Your task to perform on an android device: turn pop-ups off in chrome Image 0: 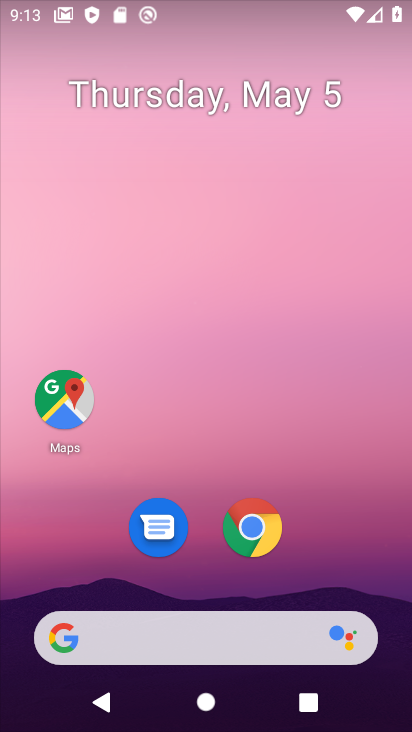
Step 0: click (264, 520)
Your task to perform on an android device: turn pop-ups off in chrome Image 1: 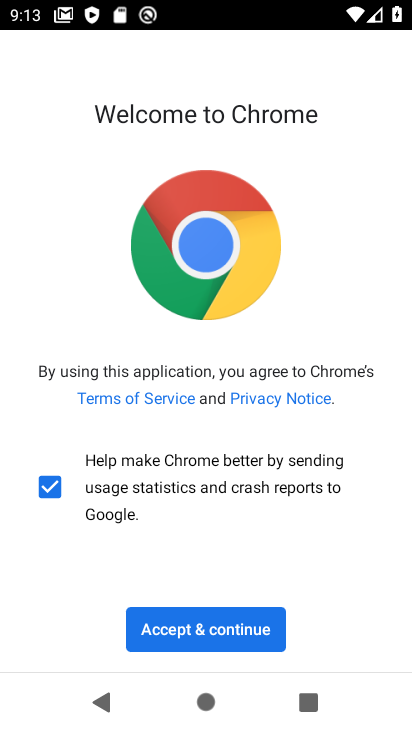
Step 1: click (216, 628)
Your task to perform on an android device: turn pop-ups off in chrome Image 2: 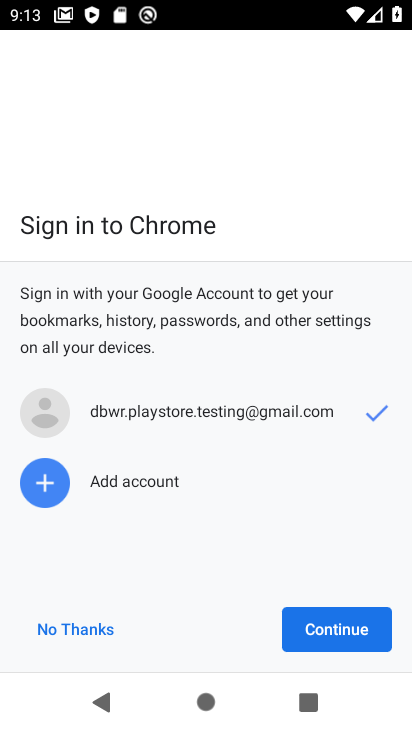
Step 2: click (355, 634)
Your task to perform on an android device: turn pop-ups off in chrome Image 3: 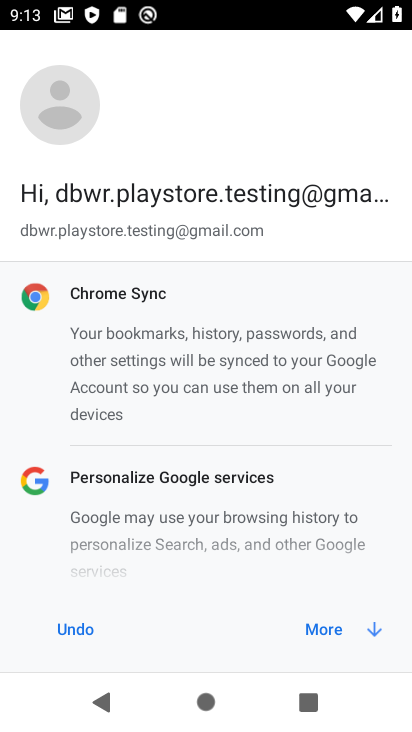
Step 3: click (335, 622)
Your task to perform on an android device: turn pop-ups off in chrome Image 4: 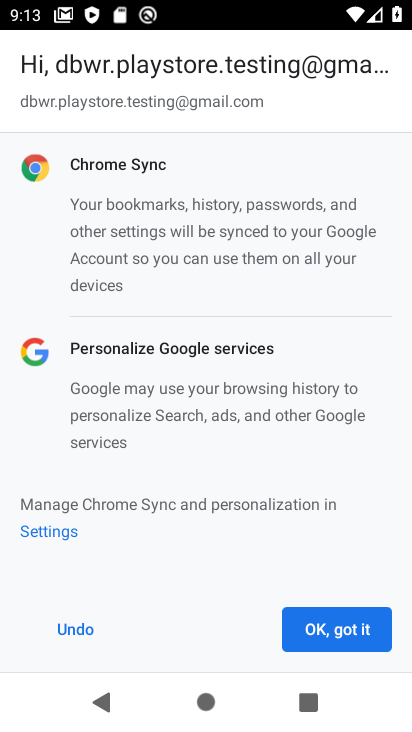
Step 4: click (335, 622)
Your task to perform on an android device: turn pop-ups off in chrome Image 5: 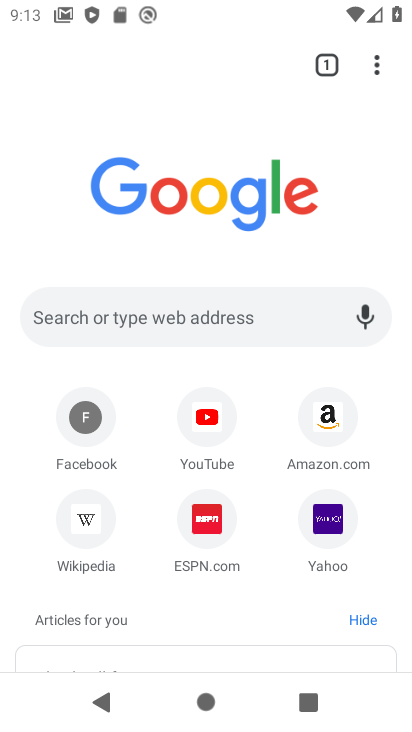
Step 5: click (381, 67)
Your task to perform on an android device: turn pop-ups off in chrome Image 6: 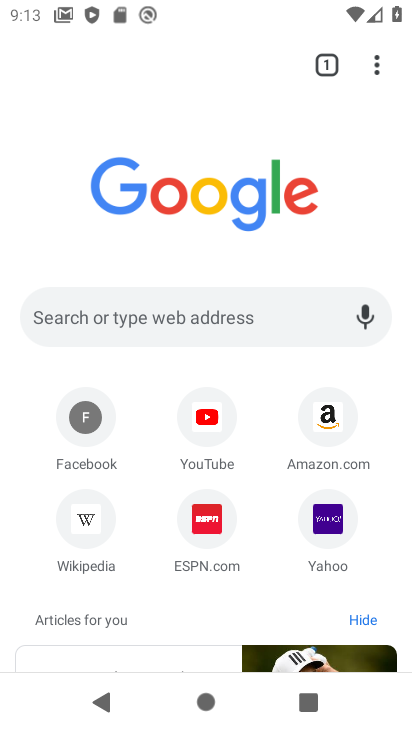
Step 6: click (381, 60)
Your task to perform on an android device: turn pop-ups off in chrome Image 7: 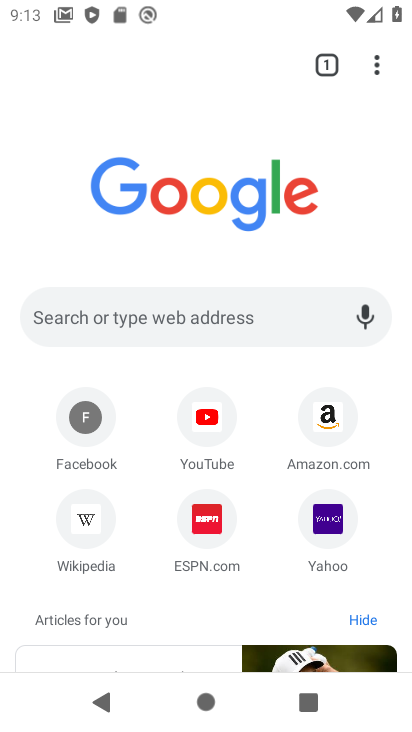
Step 7: click (380, 73)
Your task to perform on an android device: turn pop-ups off in chrome Image 8: 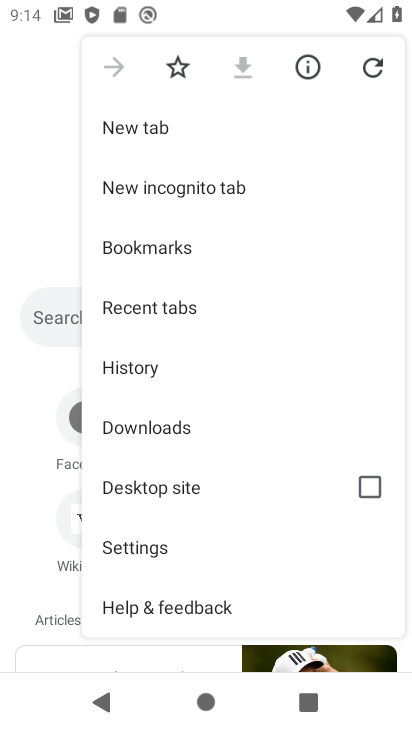
Step 8: drag from (279, 536) to (303, 148)
Your task to perform on an android device: turn pop-ups off in chrome Image 9: 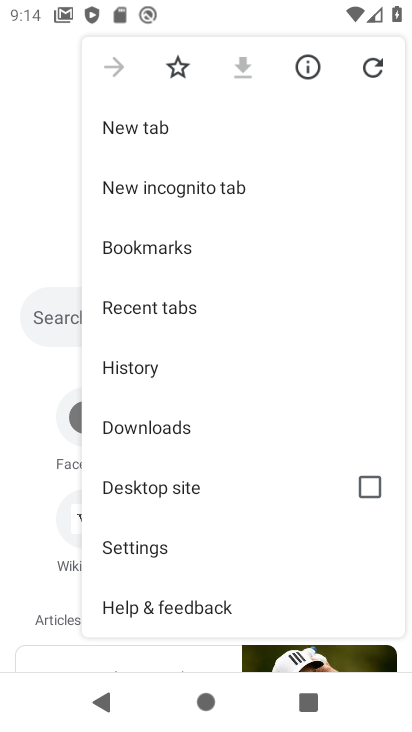
Step 9: click (209, 549)
Your task to perform on an android device: turn pop-ups off in chrome Image 10: 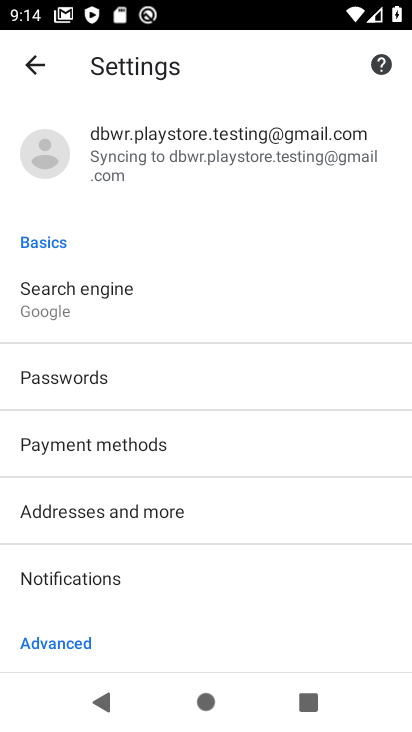
Step 10: drag from (200, 605) to (247, 144)
Your task to perform on an android device: turn pop-ups off in chrome Image 11: 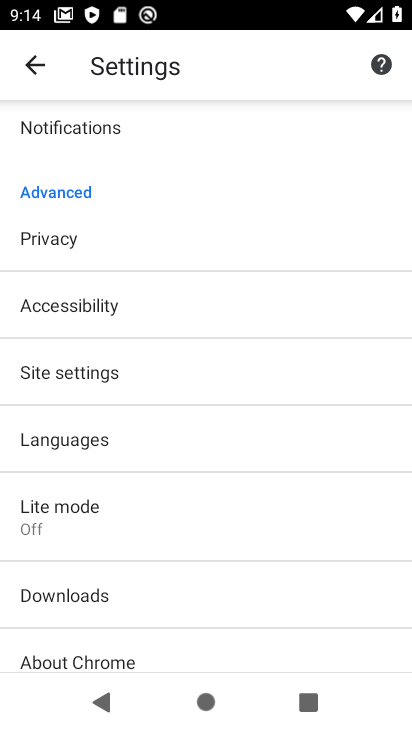
Step 11: click (218, 389)
Your task to perform on an android device: turn pop-ups off in chrome Image 12: 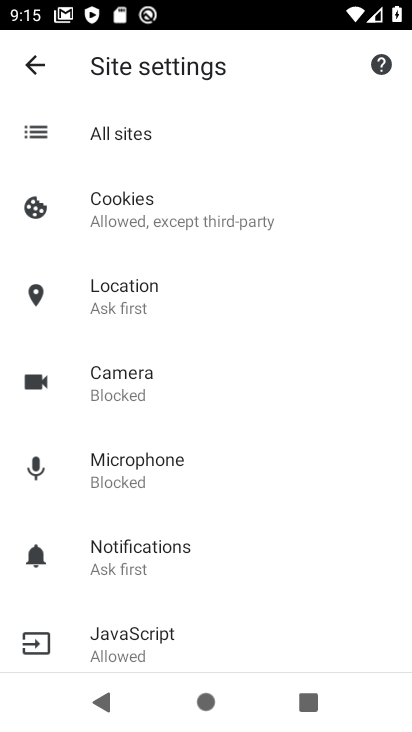
Step 12: drag from (180, 583) to (207, 126)
Your task to perform on an android device: turn pop-ups off in chrome Image 13: 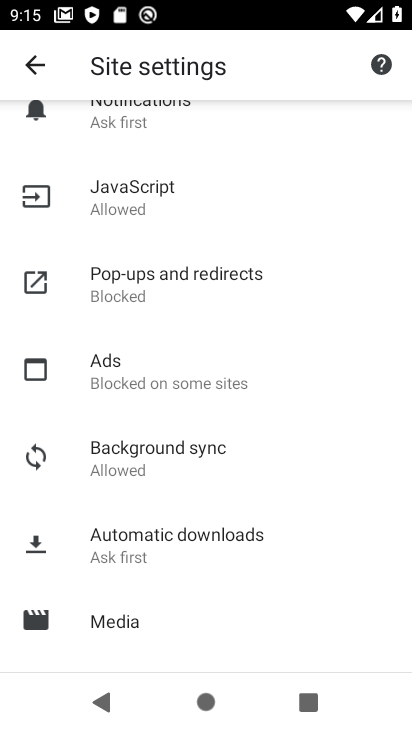
Step 13: drag from (310, 601) to (305, 235)
Your task to perform on an android device: turn pop-ups off in chrome Image 14: 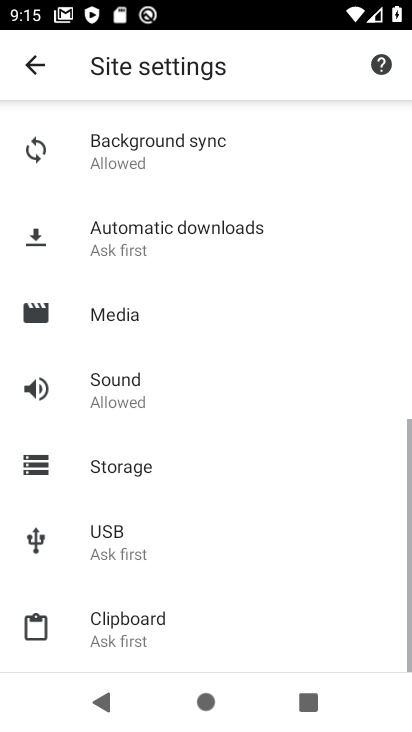
Step 14: drag from (243, 535) to (263, 195)
Your task to perform on an android device: turn pop-ups off in chrome Image 15: 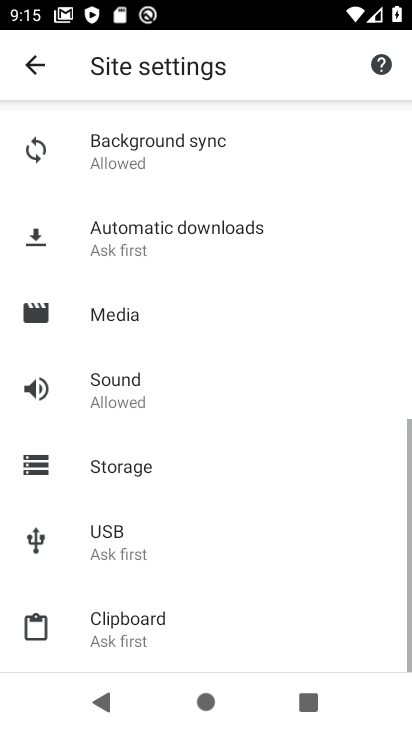
Step 15: drag from (271, 261) to (285, 540)
Your task to perform on an android device: turn pop-ups off in chrome Image 16: 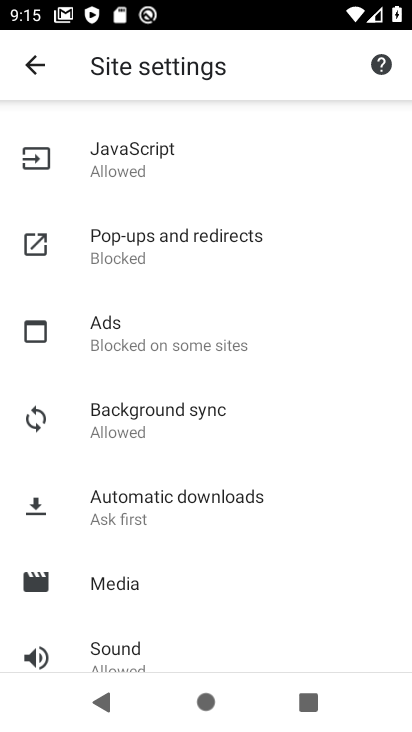
Step 16: click (307, 208)
Your task to perform on an android device: turn pop-ups off in chrome Image 17: 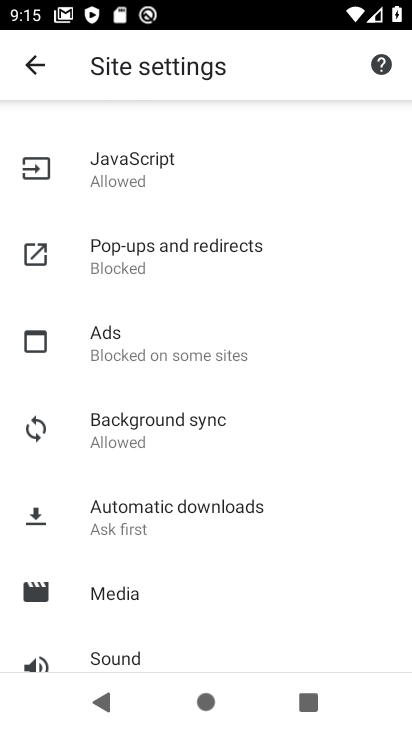
Step 17: click (277, 255)
Your task to perform on an android device: turn pop-ups off in chrome Image 18: 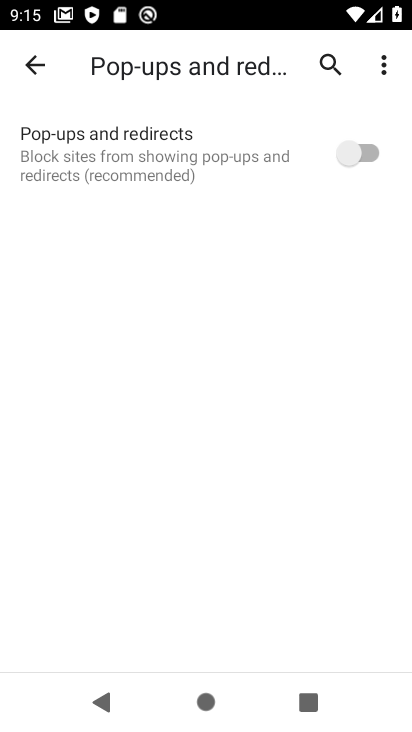
Step 18: task complete